Your task to perform on an android device: turn off wifi Image 0: 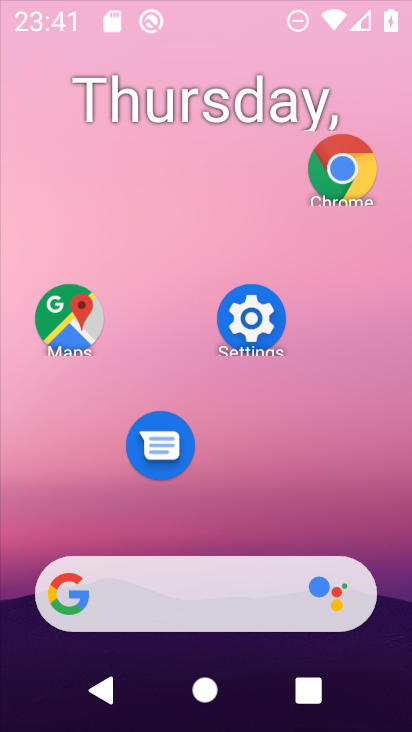
Step 0: click (278, 80)
Your task to perform on an android device: turn off wifi Image 1: 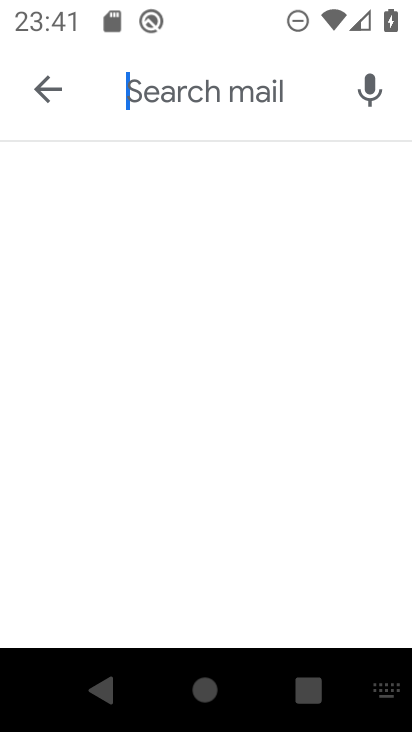
Step 1: drag from (234, 579) to (285, 201)
Your task to perform on an android device: turn off wifi Image 2: 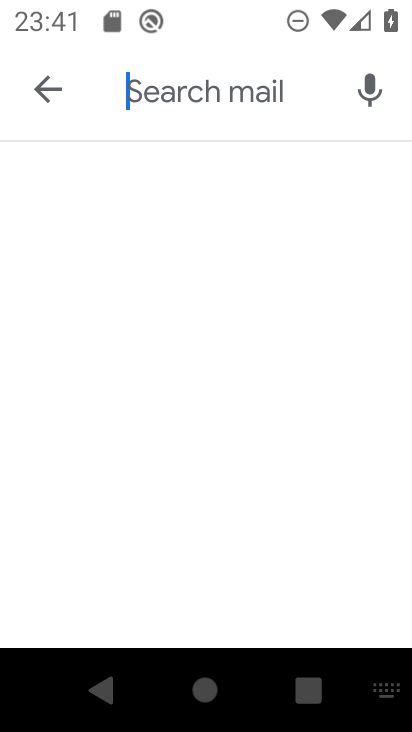
Step 2: drag from (275, 522) to (272, 256)
Your task to perform on an android device: turn off wifi Image 3: 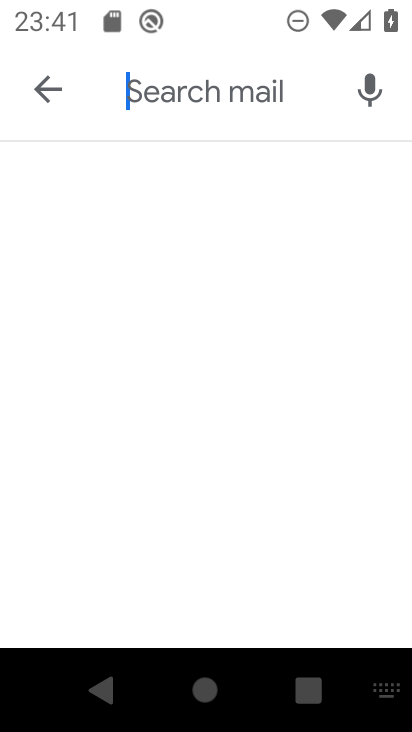
Step 3: press back button
Your task to perform on an android device: turn off wifi Image 4: 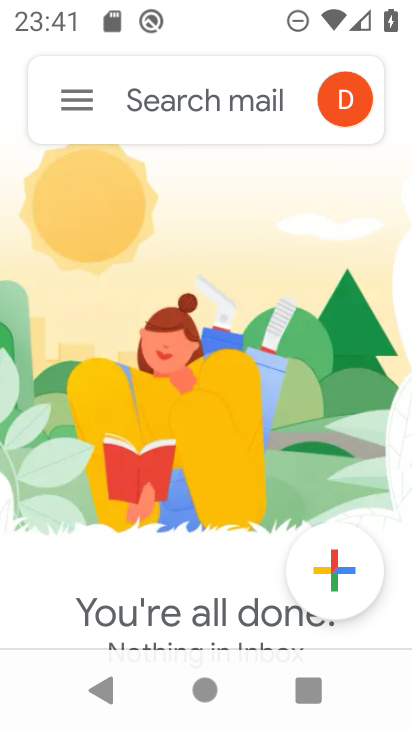
Step 4: press home button
Your task to perform on an android device: turn off wifi Image 5: 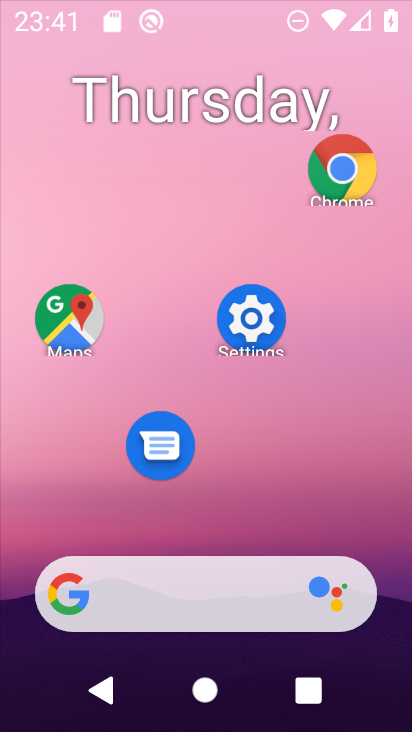
Step 5: drag from (178, 578) to (221, 121)
Your task to perform on an android device: turn off wifi Image 6: 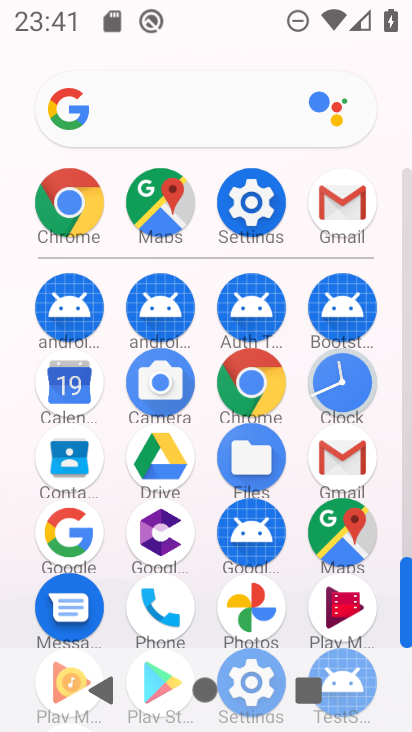
Step 6: click (244, 187)
Your task to perform on an android device: turn off wifi Image 7: 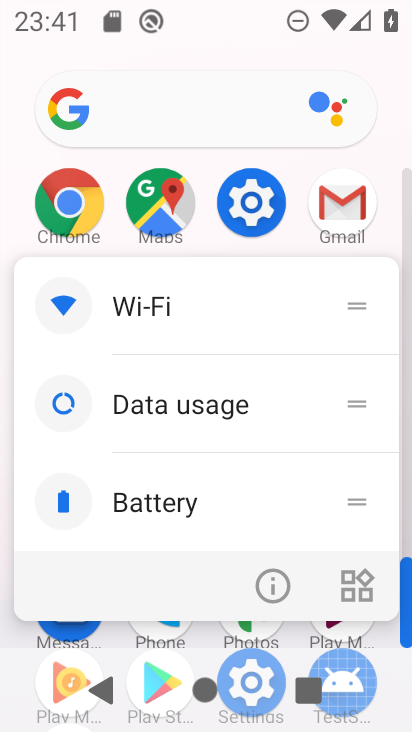
Step 7: click (172, 288)
Your task to perform on an android device: turn off wifi Image 8: 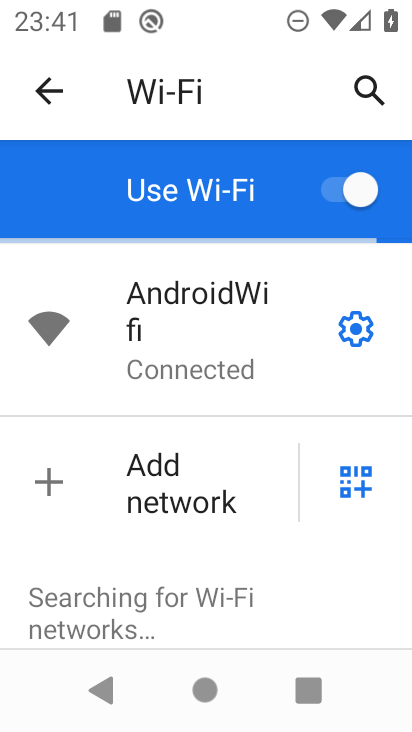
Step 8: drag from (210, 594) to (246, 305)
Your task to perform on an android device: turn off wifi Image 9: 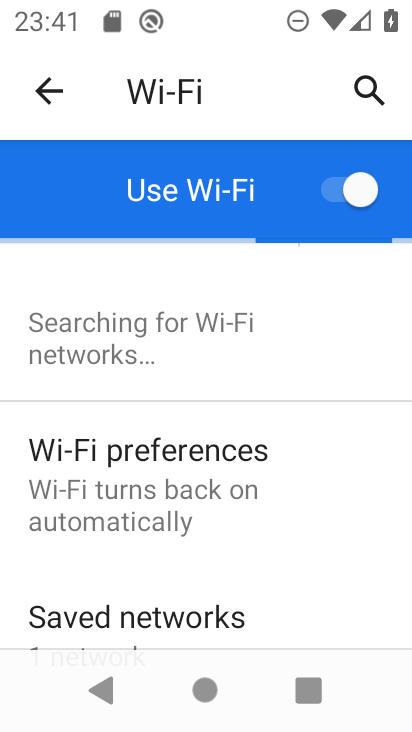
Step 9: drag from (240, 382) to (284, 716)
Your task to perform on an android device: turn off wifi Image 10: 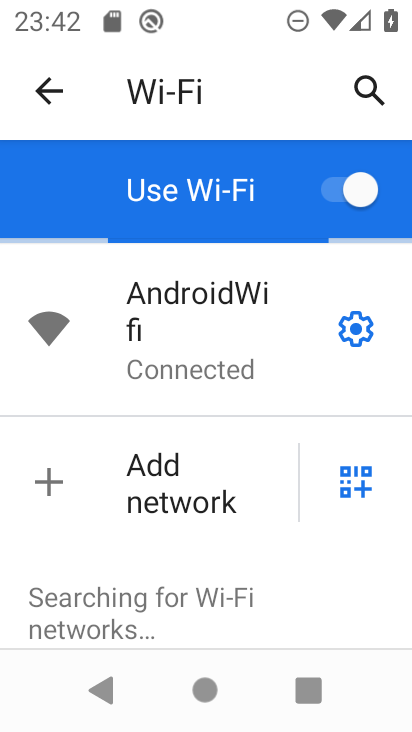
Step 10: click (355, 220)
Your task to perform on an android device: turn off wifi Image 11: 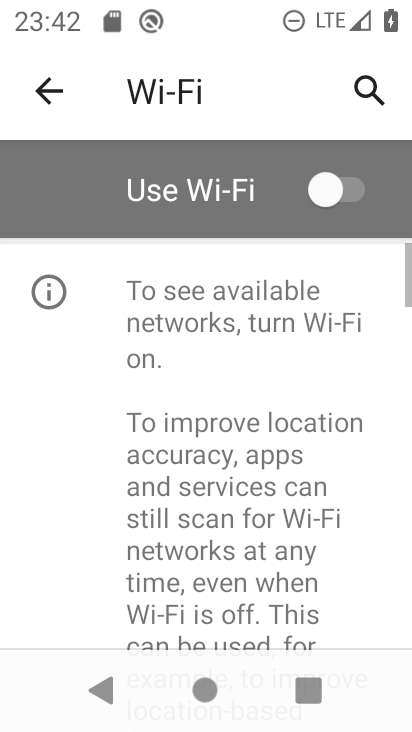
Step 11: task complete